Your task to perform on an android device: clear all cookies in the chrome app Image 0: 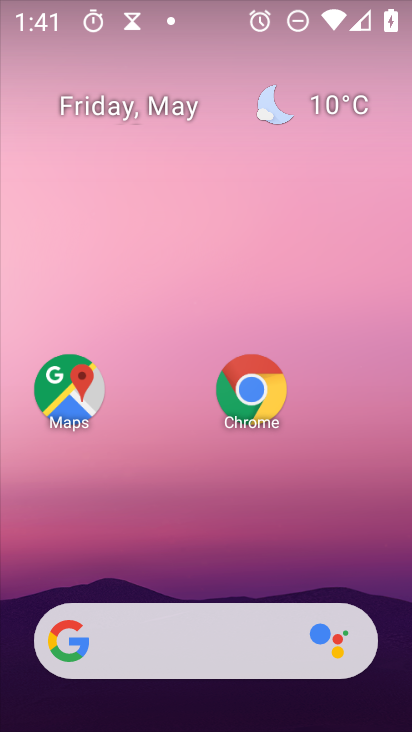
Step 0: drag from (167, 654) to (311, 173)
Your task to perform on an android device: clear all cookies in the chrome app Image 1: 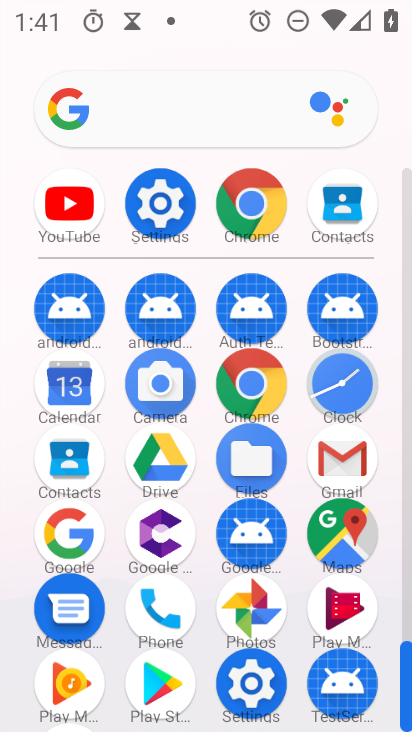
Step 1: click (277, 203)
Your task to perform on an android device: clear all cookies in the chrome app Image 2: 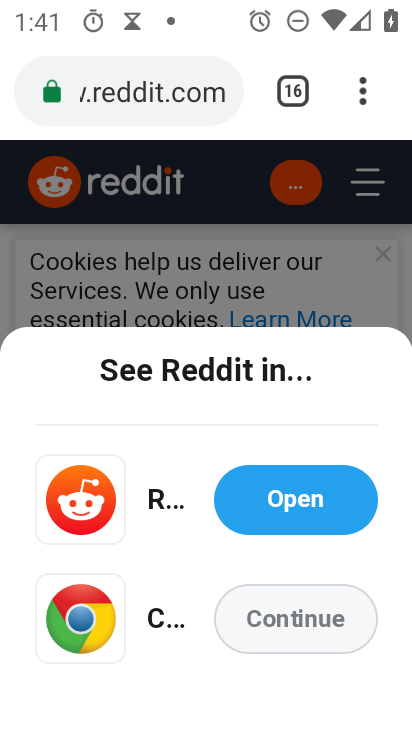
Step 2: drag from (357, 114) to (163, 568)
Your task to perform on an android device: clear all cookies in the chrome app Image 3: 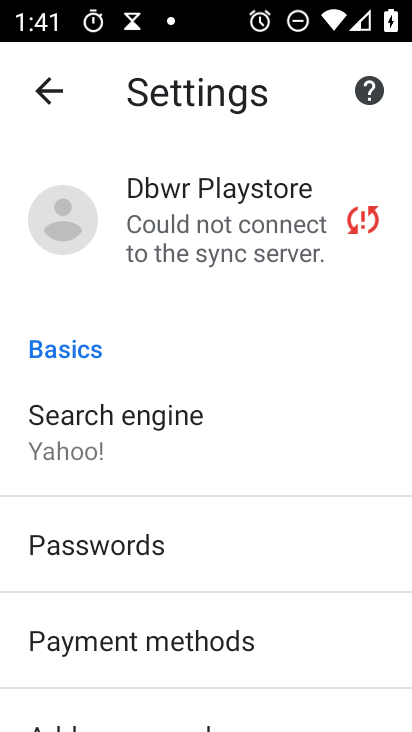
Step 3: drag from (154, 646) to (369, 177)
Your task to perform on an android device: clear all cookies in the chrome app Image 4: 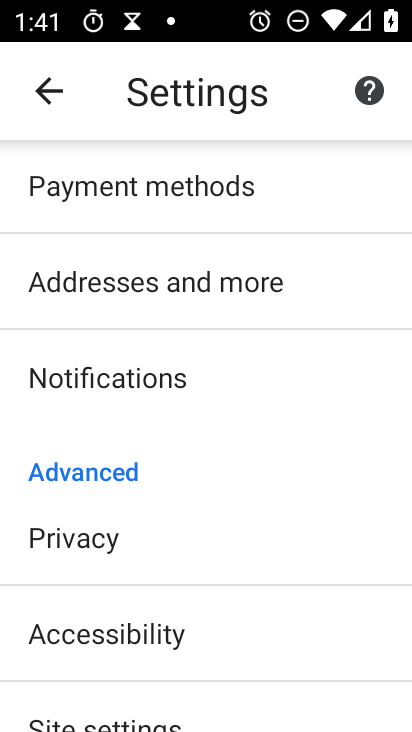
Step 4: click (98, 541)
Your task to perform on an android device: clear all cookies in the chrome app Image 5: 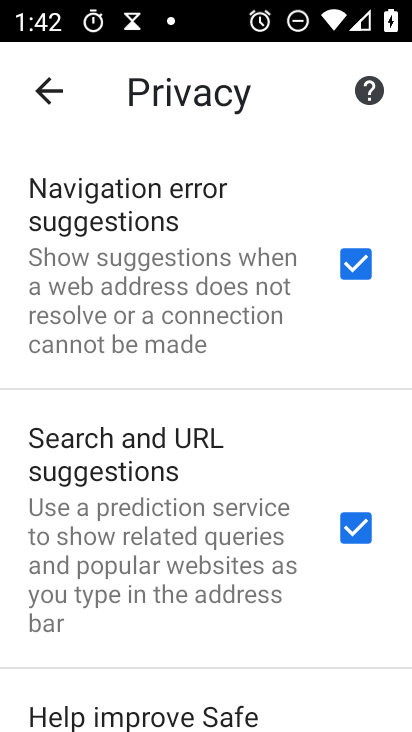
Step 5: drag from (141, 660) to (295, 233)
Your task to perform on an android device: clear all cookies in the chrome app Image 6: 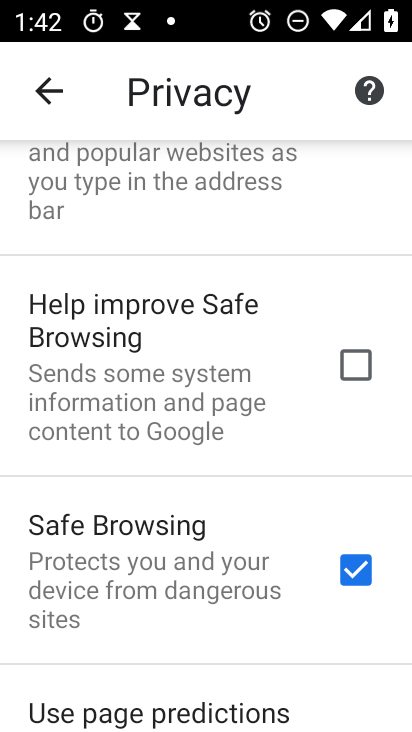
Step 6: drag from (176, 647) to (382, 97)
Your task to perform on an android device: clear all cookies in the chrome app Image 7: 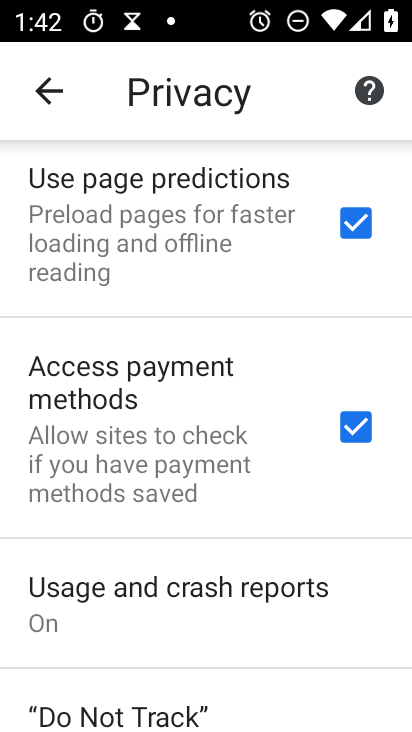
Step 7: drag from (220, 700) to (410, 134)
Your task to perform on an android device: clear all cookies in the chrome app Image 8: 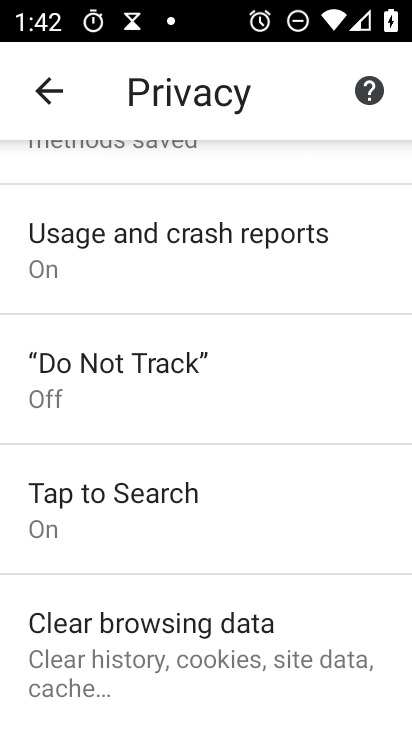
Step 8: click (174, 632)
Your task to perform on an android device: clear all cookies in the chrome app Image 9: 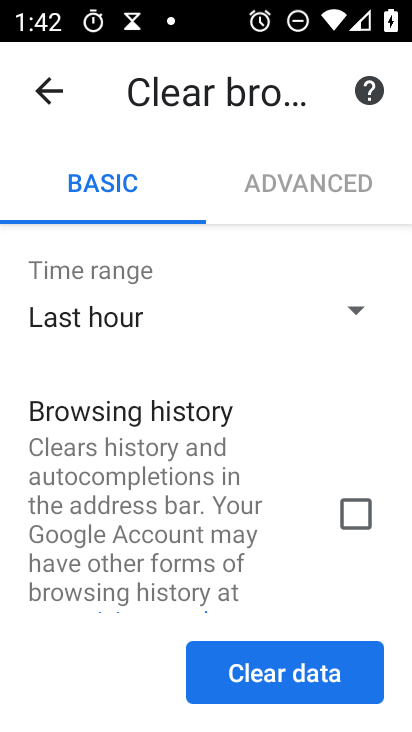
Step 9: drag from (189, 575) to (375, 181)
Your task to perform on an android device: clear all cookies in the chrome app Image 10: 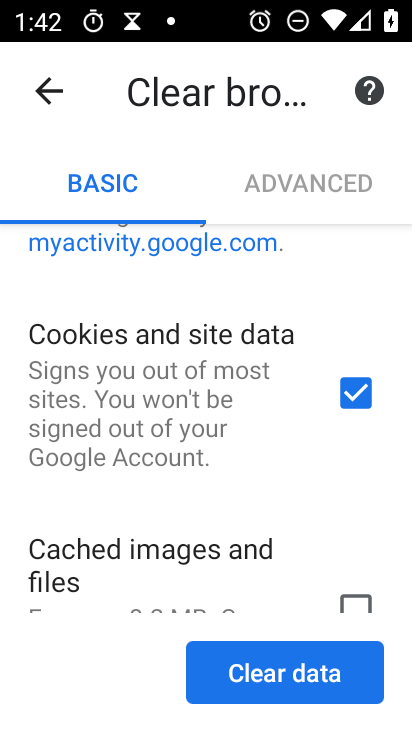
Step 10: click (279, 684)
Your task to perform on an android device: clear all cookies in the chrome app Image 11: 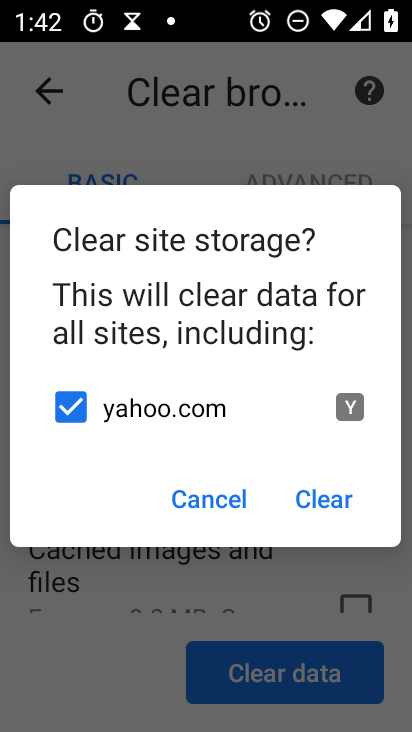
Step 11: click (331, 498)
Your task to perform on an android device: clear all cookies in the chrome app Image 12: 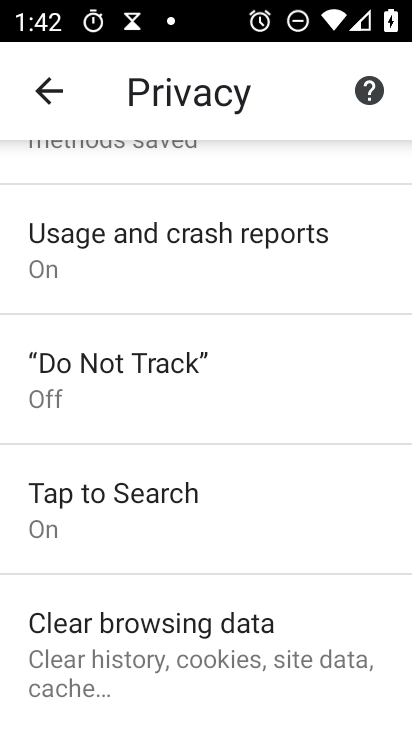
Step 12: task complete